Your task to perform on an android device: Open calendar and show me the fourth week of next month Image 0: 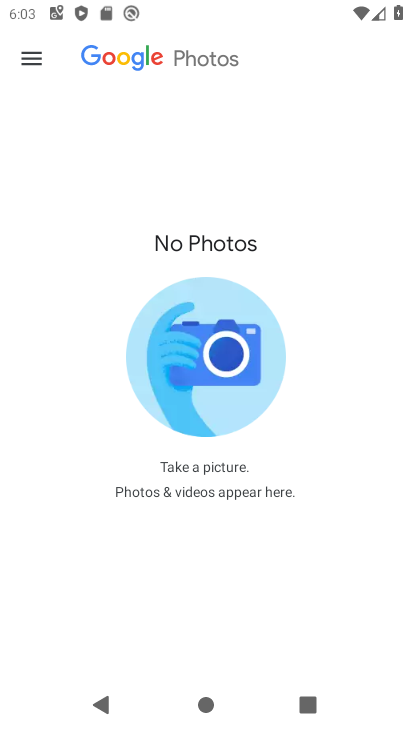
Step 0: press home button
Your task to perform on an android device: Open calendar and show me the fourth week of next month Image 1: 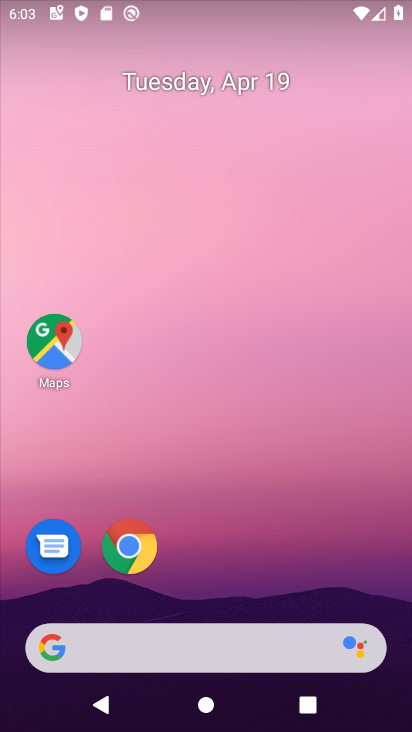
Step 1: drag from (258, 555) to (297, 57)
Your task to perform on an android device: Open calendar and show me the fourth week of next month Image 2: 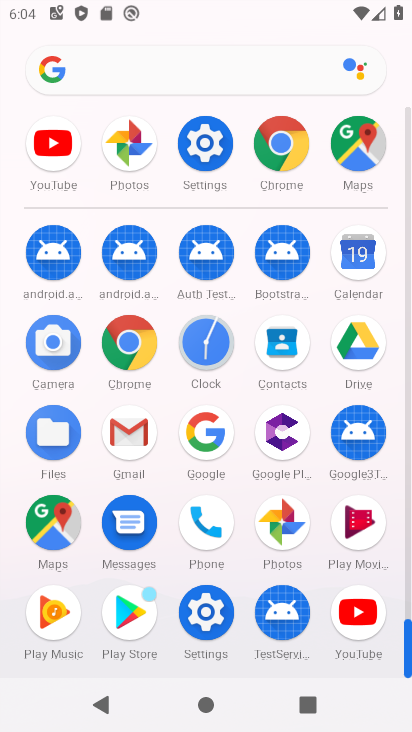
Step 2: click (356, 258)
Your task to perform on an android device: Open calendar and show me the fourth week of next month Image 3: 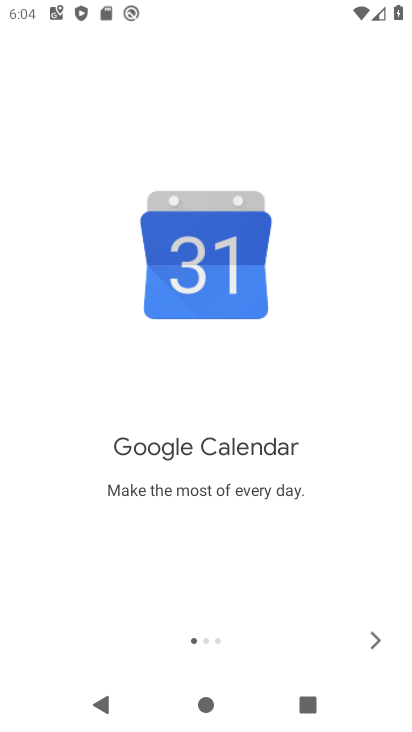
Step 3: click (369, 640)
Your task to perform on an android device: Open calendar and show me the fourth week of next month Image 4: 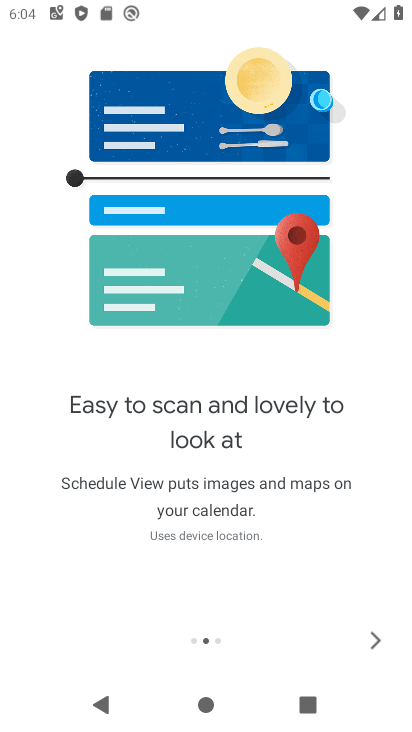
Step 4: click (369, 640)
Your task to perform on an android device: Open calendar and show me the fourth week of next month Image 5: 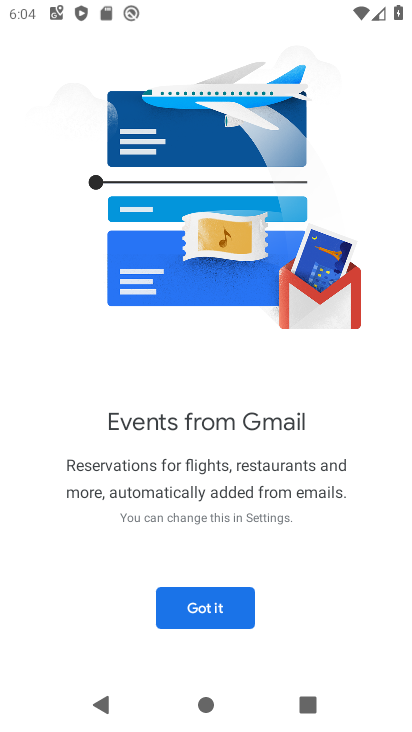
Step 5: click (202, 620)
Your task to perform on an android device: Open calendar and show me the fourth week of next month Image 6: 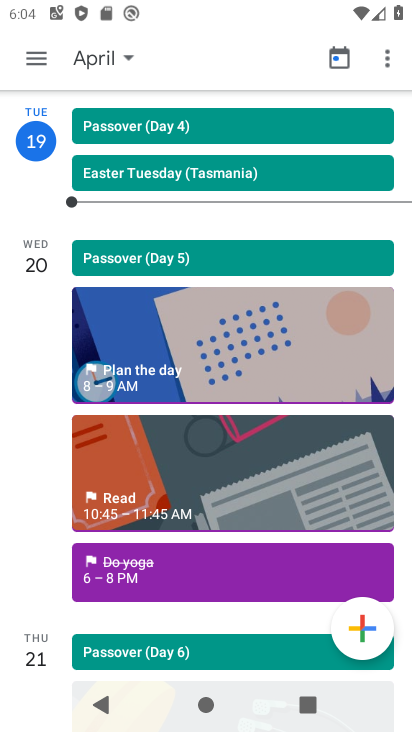
Step 6: click (104, 59)
Your task to perform on an android device: Open calendar and show me the fourth week of next month Image 7: 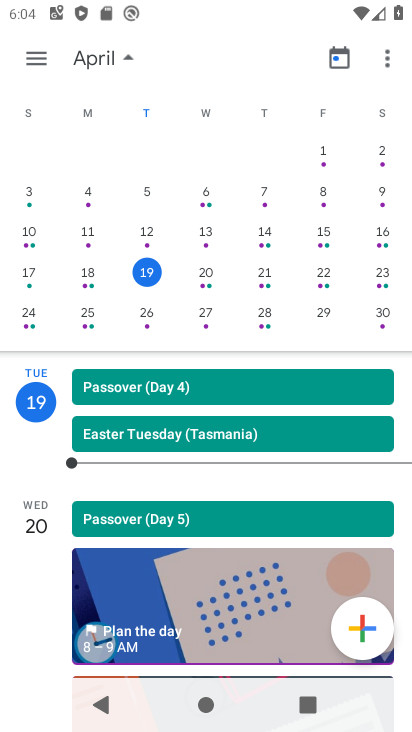
Step 7: drag from (358, 265) to (32, 268)
Your task to perform on an android device: Open calendar and show me the fourth week of next month Image 8: 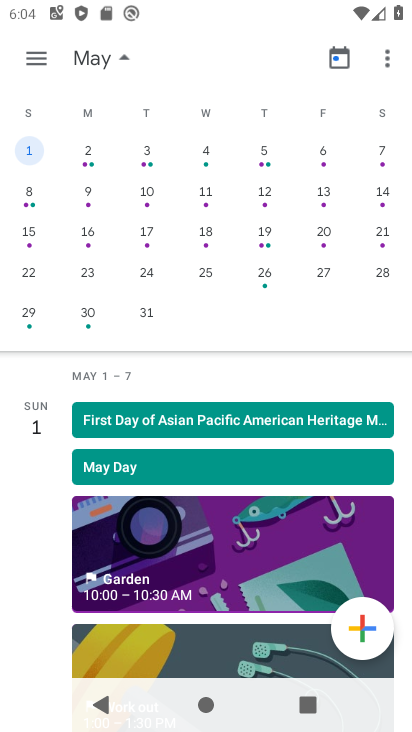
Step 8: click (93, 266)
Your task to perform on an android device: Open calendar and show me the fourth week of next month Image 9: 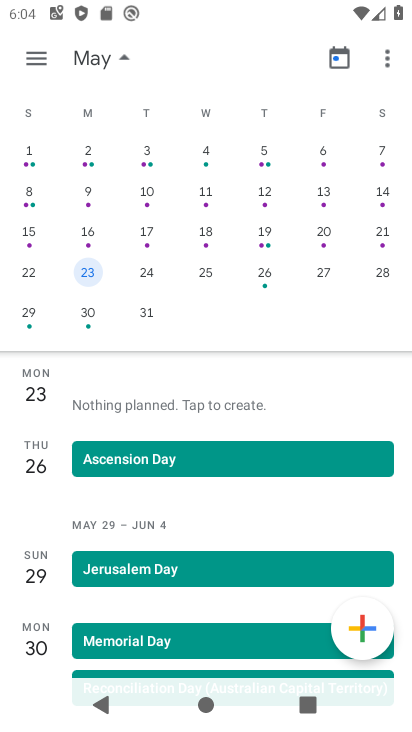
Step 9: task complete